Your task to perform on an android device: change your default location settings in chrome Image 0: 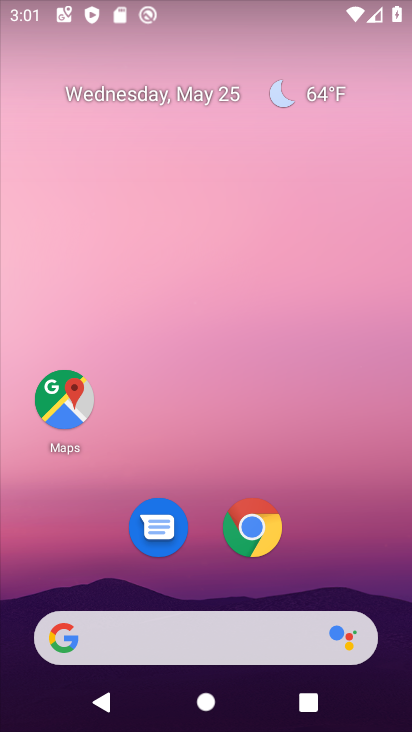
Step 0: click (260, 527)
Your task to perform on an android device: change your default location settings in chrome Image 1: 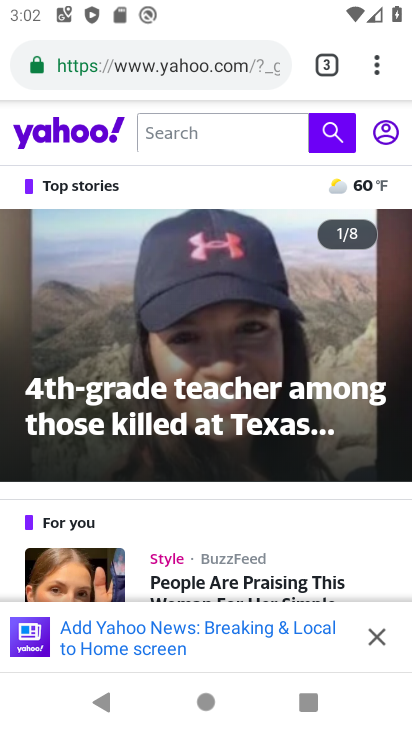
Step 1: drag from (373, 69) to (139, 576)
Your task to perform on an android device: change your default location settings in chrome Image 2: 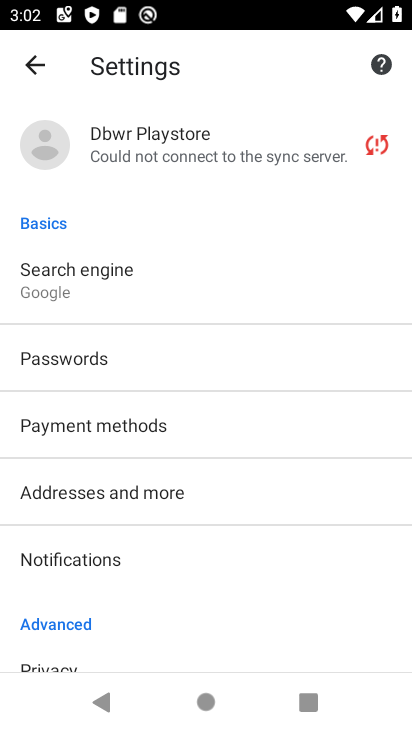
Step 2: drag from (154, 612) to (225, 163)
Your task to perform on an android device: change your default location settings in chrome Image 3: 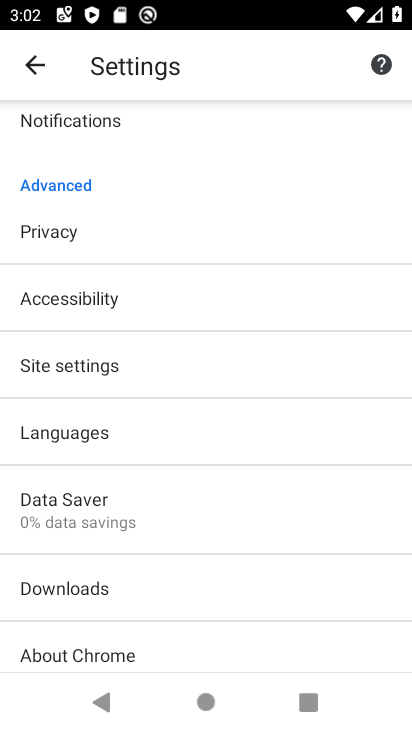
Step 3: click (80, 372)
Your task to perform on an android device: change your default location settings in chrome Image 4: 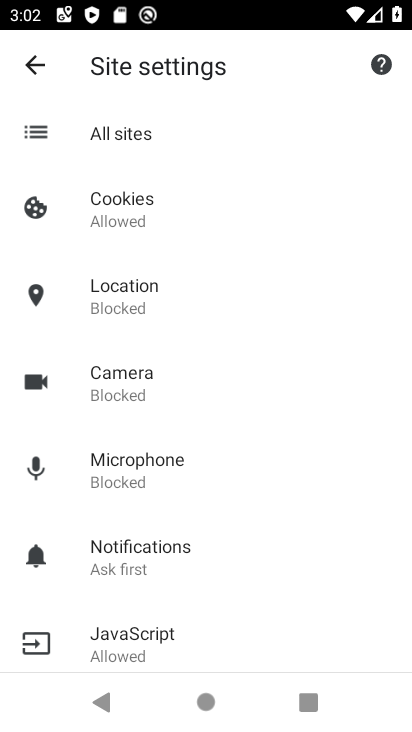
Step 4: click (189, 296)
Your task to perform on an android device: change your default location settings in chrome Image 5: 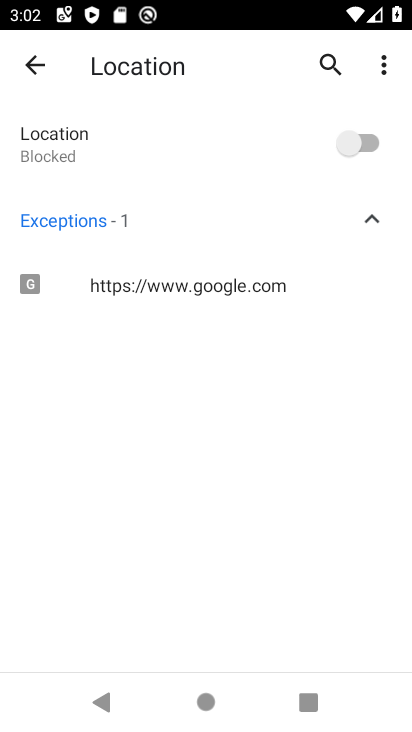
Step 5: click (358, 136)
Your task to perform on an android device: change your default location settings in chrome Image 6: 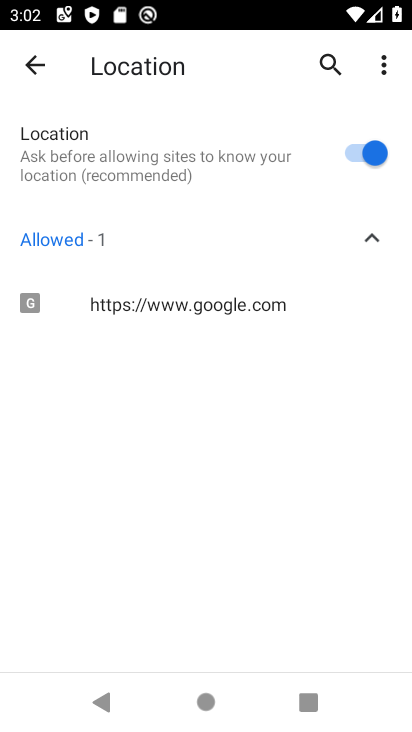
Step 6: task complete